Your task to perform on an android device: turn off wifi Image 0: 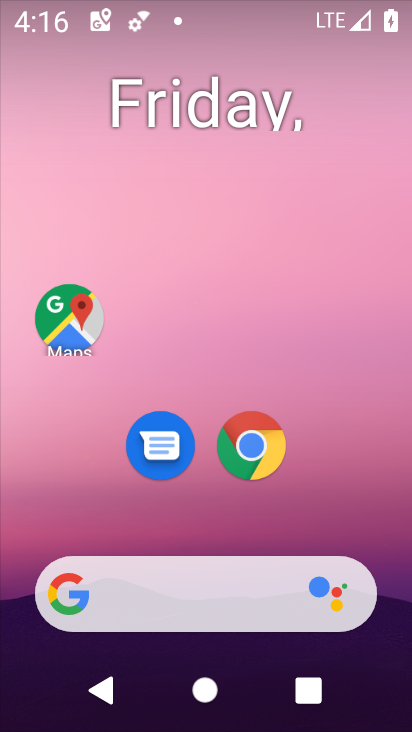
Step 0: drag from (403, 584) to (263, 151)
Your task to perform on an android device: turn off wifi Image 1: 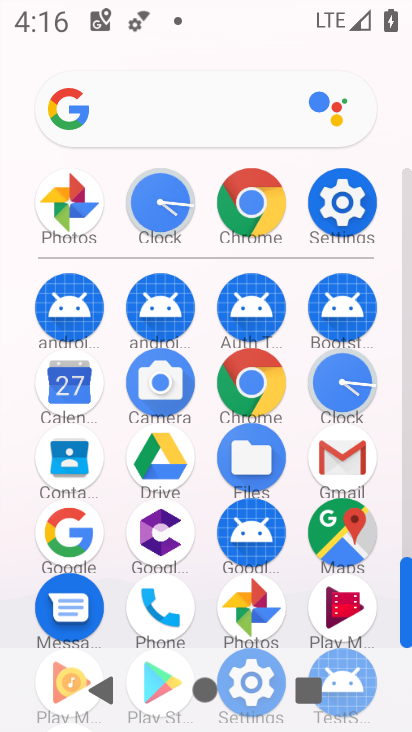
Step 1: click (344, 204)
Your task to perform on an android device: turn off wifi Image 2: 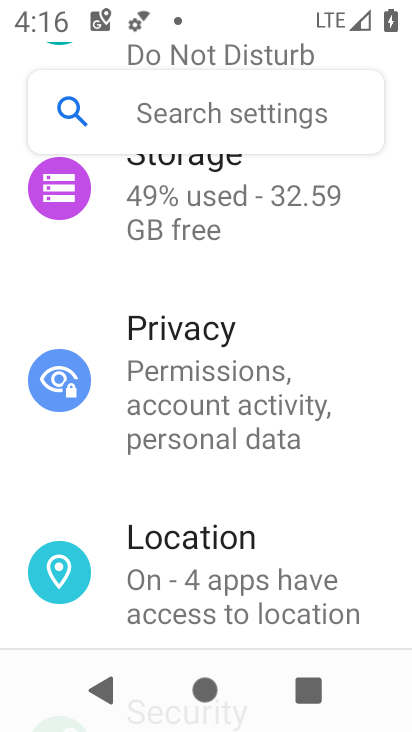
Step 2: drag from (213, 265) to (181, 664)
Your task to perform on an android device: turn off wifi Image 3: 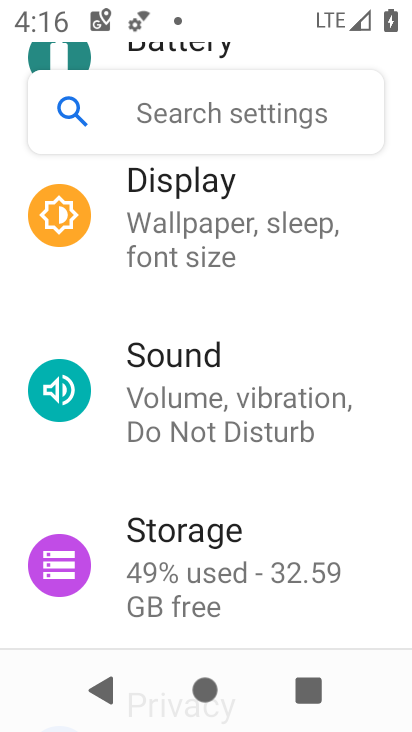
Step 3: drag from (190, 309) to (161, 709)
Your task to perform on an android device: turn off wifi Image 4: 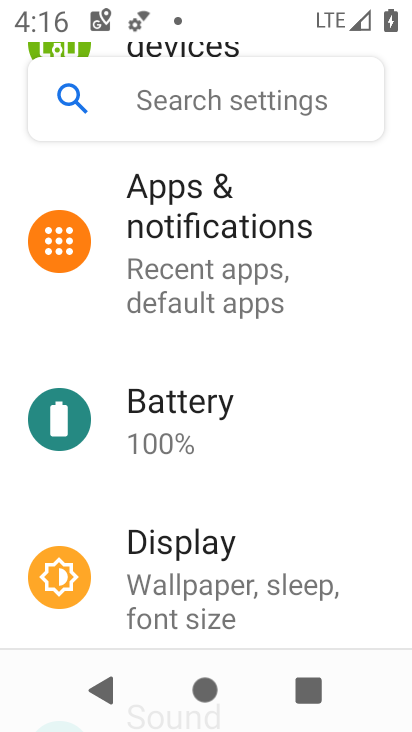
Step 4: drag from (188, 339) to (182, 626)
Your task to perform on an android device: turn off wifi Image 5: 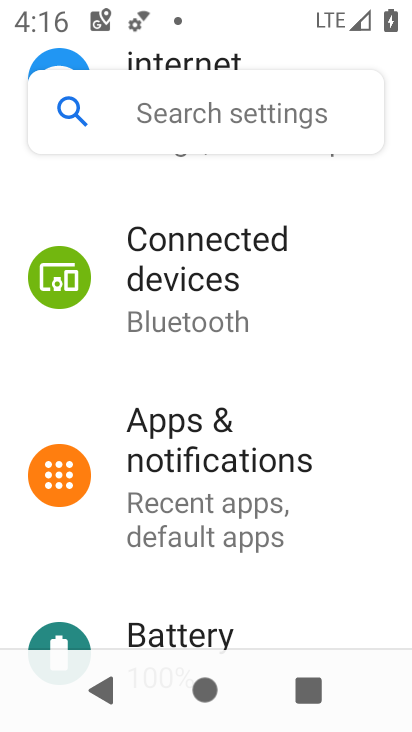
Step 5: drag from (216, 192) to (221, 587)
Your task to perform on an android device: turn off wifi Image 6: 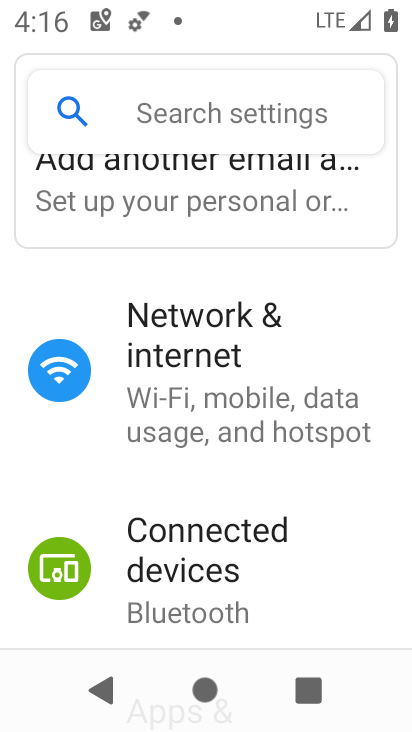
Step 6: click (216, 343)
Your task to perform on an android device: turn off wifi Image 7: 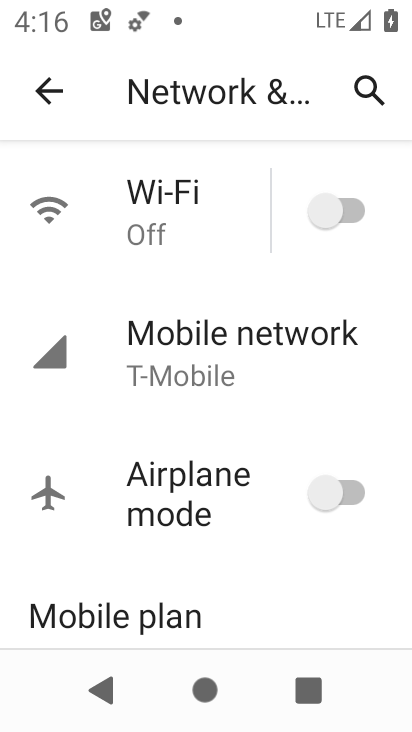
Step 7: task complete